Your task to perform on an android device: turn off sleep mode Image 0: 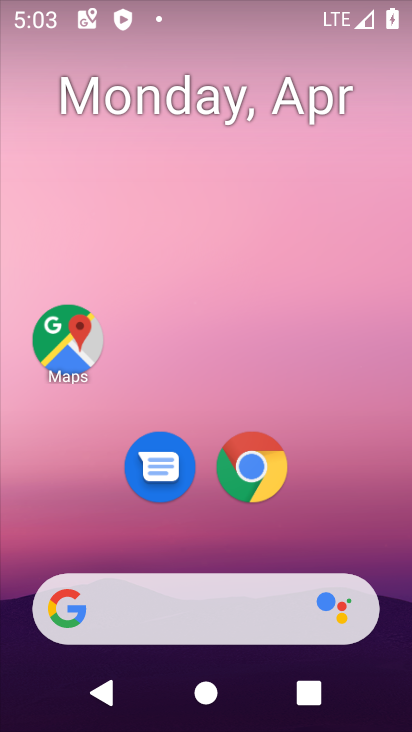
Step 0: drag from (296, 567) to (329, 0)
Your task to perform on an android device: turn off sleep mode Image 1: 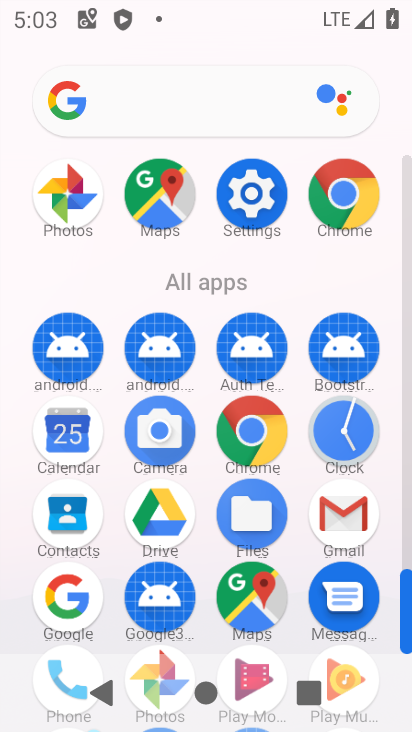
Step 1: drag from (284, 548) to (319, 87)
Your task to perform on an android device: turn off sleep mode Image 2: 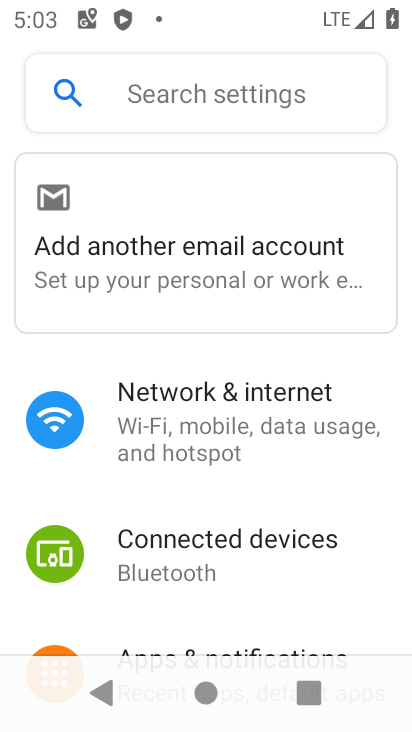
Step 2: click (174, 624)
Your task to perform on an android device: turn off sleep mode Image 3: 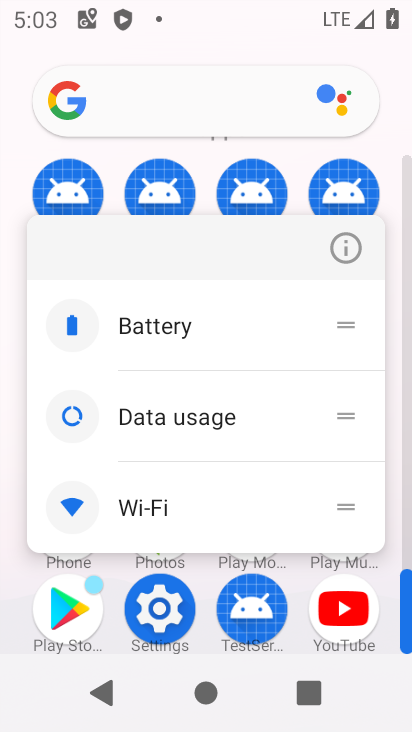
Step 3: click (166, 605)
Your task to perform on an android device: turn off sleep mode Image 4: 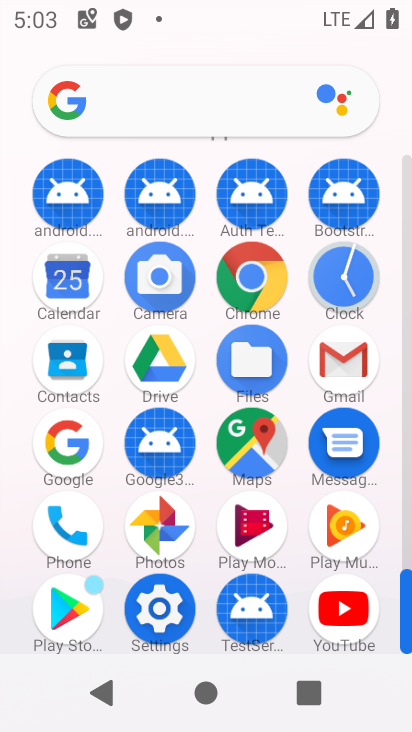
Step 4: click (158, 608)
Your task to perform on an android device: turn off sleep mode Image 5: 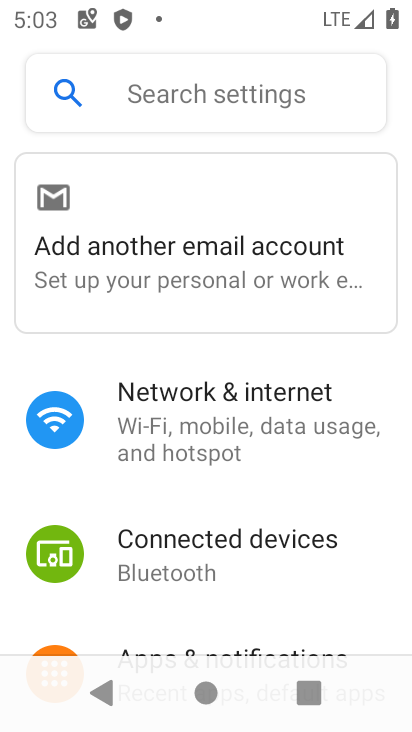
Step 5: task complete